Your task to perform on an android device: What is the news today? Image 0: 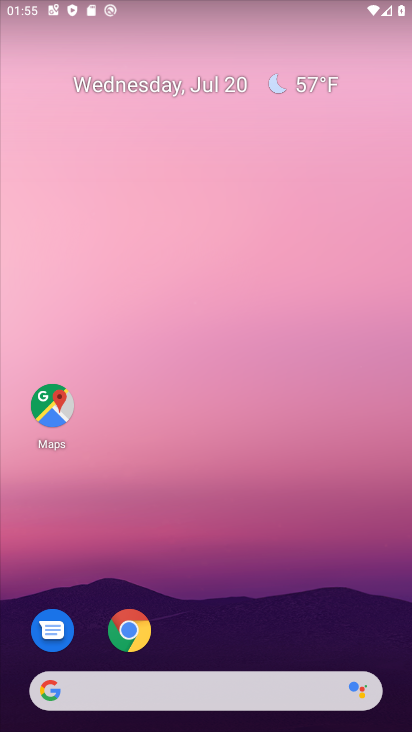
Step 0: drag from (290, 504) to (341, 65)
Your task to perform on an android device: What is the news today? Image 1: 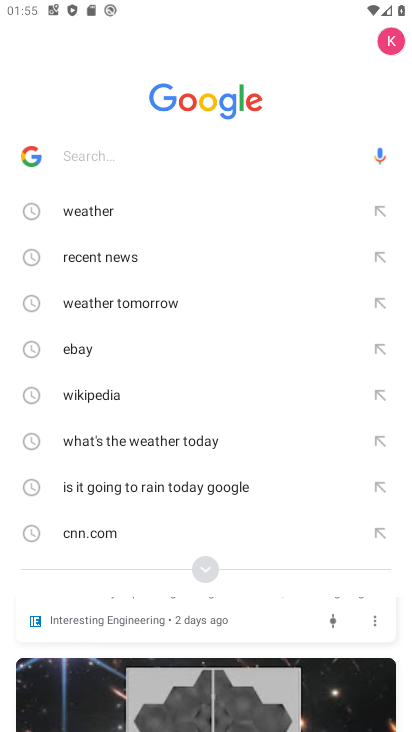
Step 1: press home button
Your task to perform on an android device: What is the news today? Image 2: 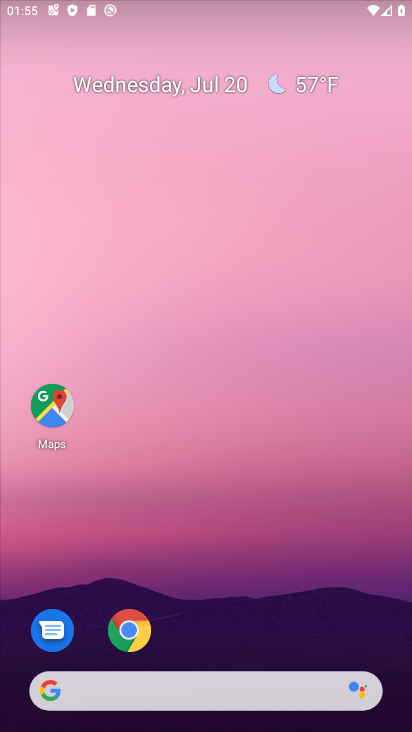
Step 2: drag from (246, 148) to (241, 106)
Your task to perform on an android device: What is the news today? Image 3: 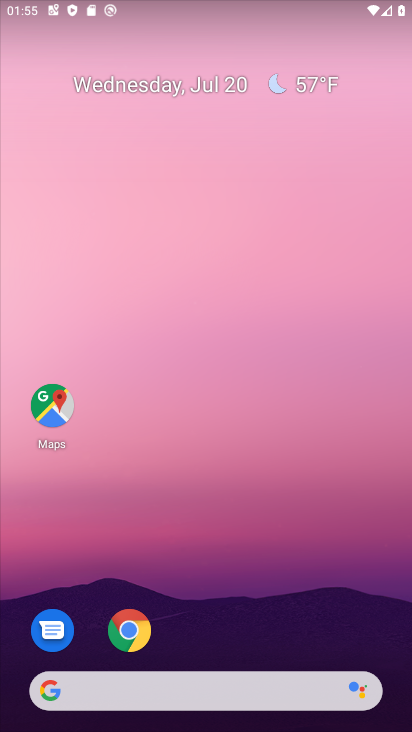
Step 3: drag from (240, 483) to (282, 0)
Your task to perform on an android device: What is the news today? Image 4: 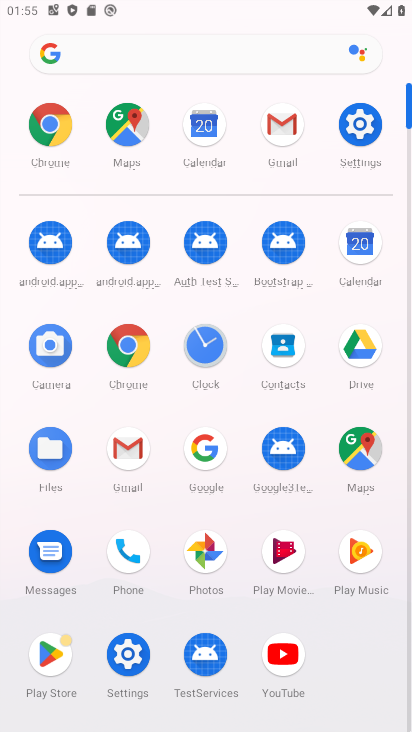
Step 4: click (48, 121)
Your task to perform on an android device: What is the news today? Image 5: 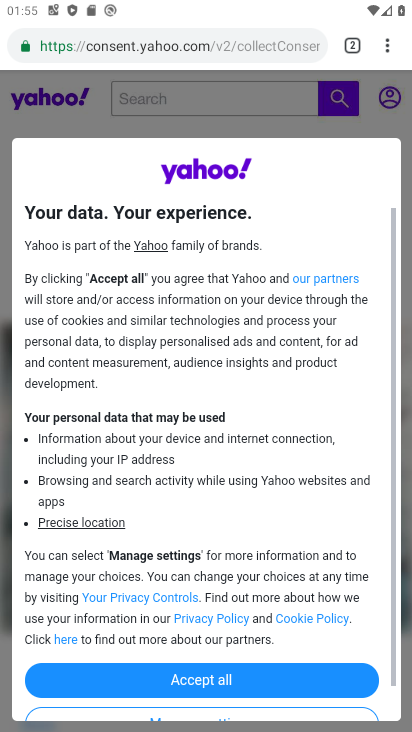
Step 5: click (246, 45)
Your task to perform on an android device: What is the news today? Image 6: 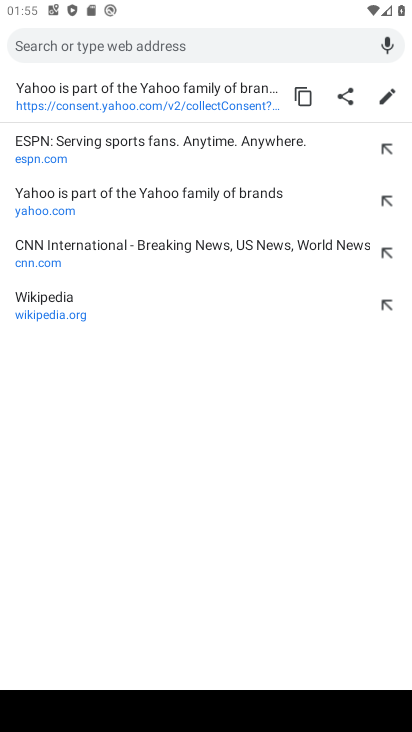
Step 6: type "news"
Your task to perform on an android device: What is the news today? Image 7: 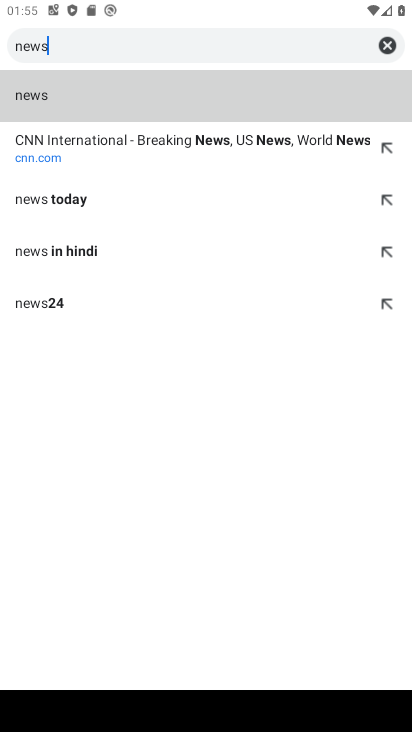
Step 7: click (40, 97)
Your task to perform on an android device: What is the news today? Image 8: 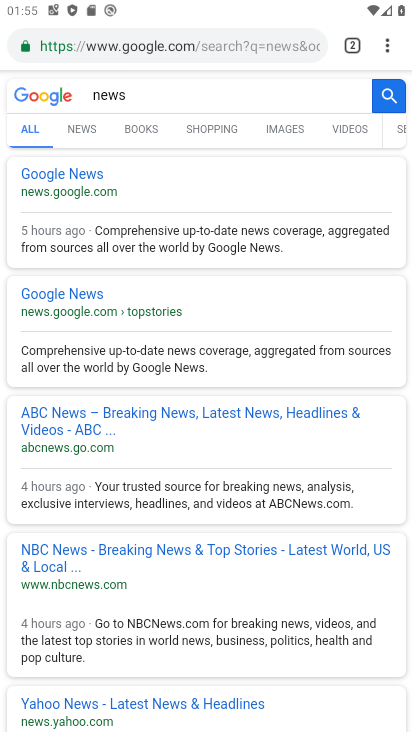
Step 8: click (83, 172)
Your task to perform on an android device: What is the news today? Image 9: 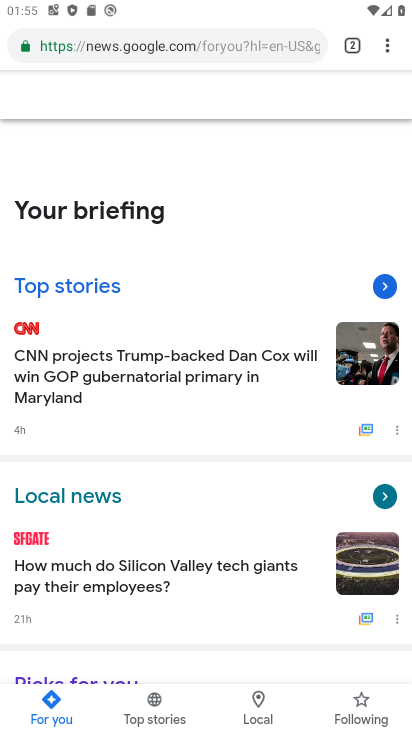
Step 9: task complete